Your task to perform on an android device: Go to CNN.com Image 0: 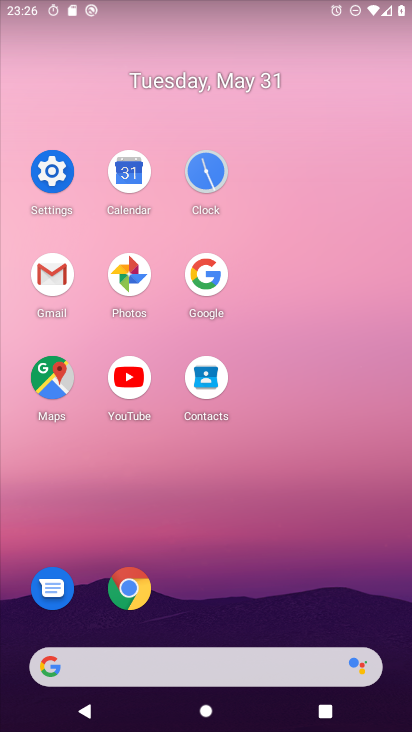
Step 0: click (122, 574)
Your task to perform on an android device: Go to CNN.com Image 1: 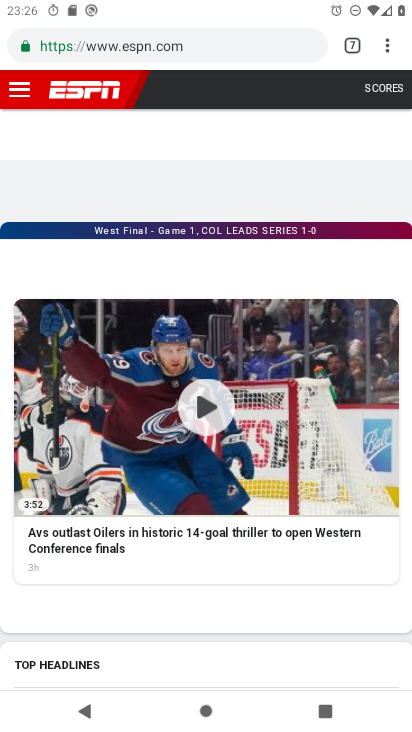
Step 1: click (362, 45)
Your task to perform on an android device: Go to CNN.com Image 2: 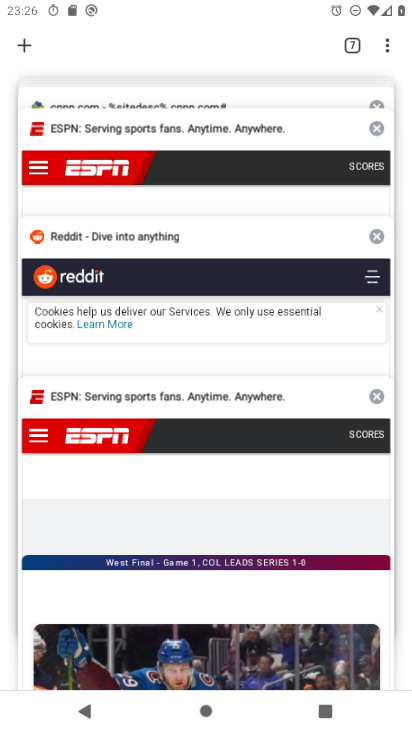
Step 2: drag from (255, 212) to (233, 510)
Your task to perform on an android device: Go to CNN.com Image 3: 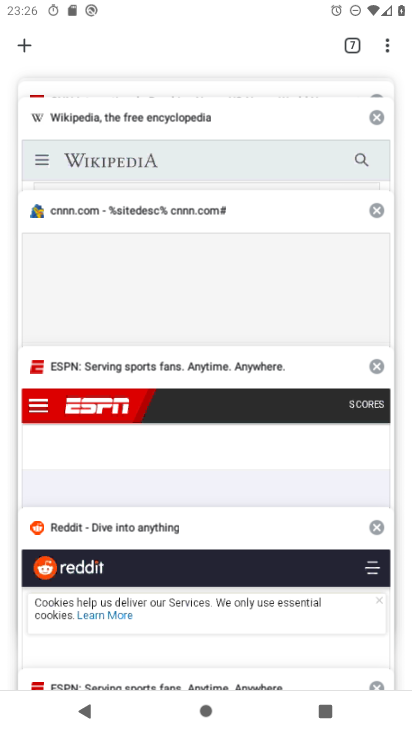
Step 3: drag from (216, 185) to (231, 460)
Your task to perform on an android device: Go to CNN.com Image 4: 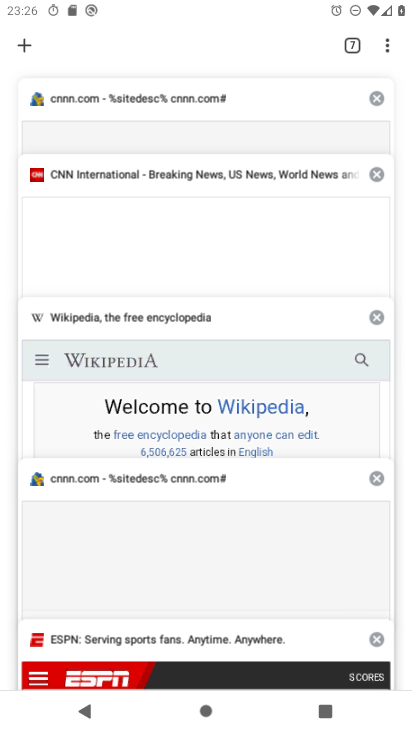
Step 4: click (85, 228)
Your task to perform on an android device: Go to CNN.com Image 5: 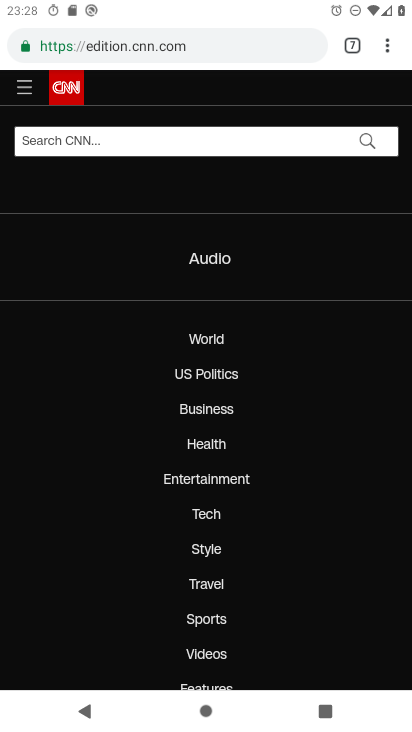
Step 5: task complete